Your task to perform on an android device: add a contact in the contacts app Image 0: 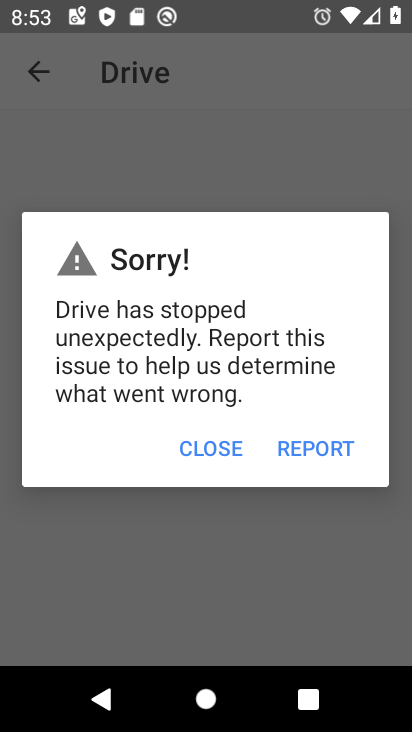
Step 0: press home button
Your task to perform on an android device: add a contact in the contacts app Image 1: 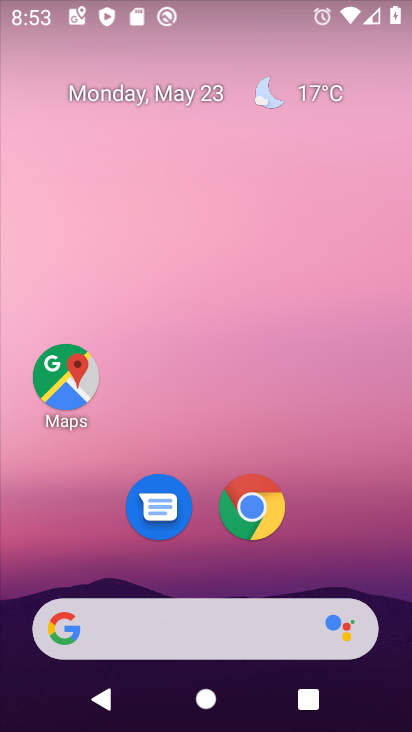
Step 1: drag from (353, 584) to (365, 6)
Your task to perform on an android device: add a contact in the contacts app Image 2: 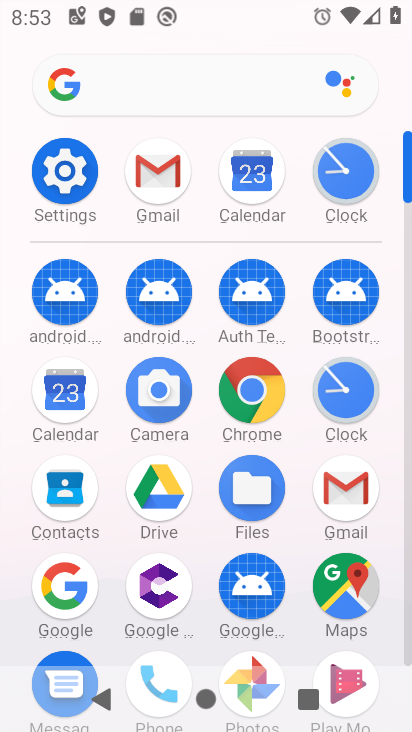
Step 2: click (52, 491)
Your task to perform on an android device: add a contact in the contacts app Image 3: 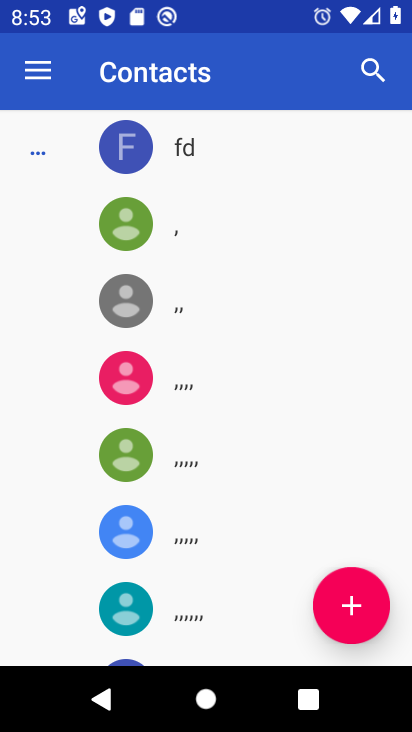
Step 3: click (343, 607)
Your task to perform on an android device: add a contact in the contacts app Image 4: 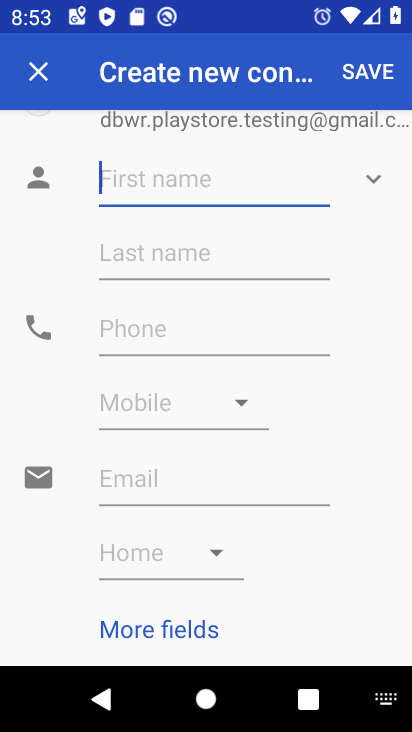
Step 4: type "kk"
Your task to perform on an android device: add a contact in the contacts app Image 5: 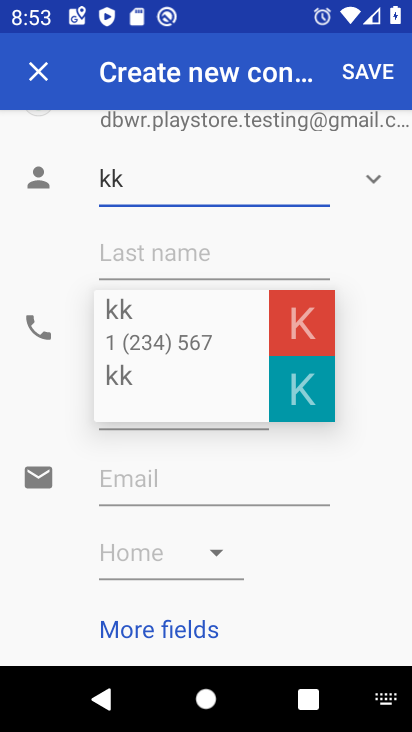
Step 5: click (366, 330)
Your task to perform on an android device: add a contact in the contacts app Image 6: 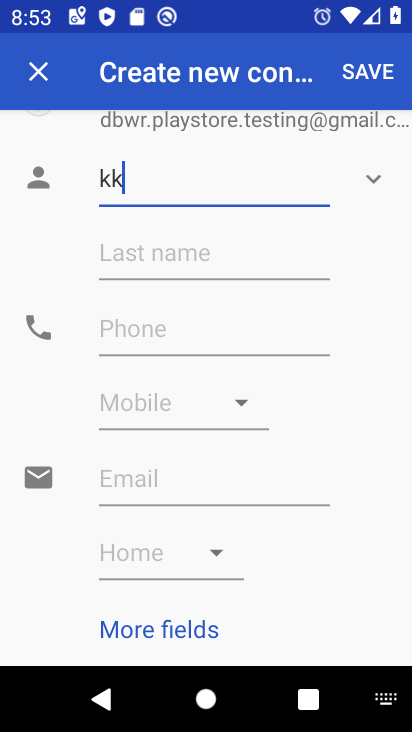
Step 6: click (194, 339)
Your task to perform on an android device: add a contact in the contacts app Image 7: 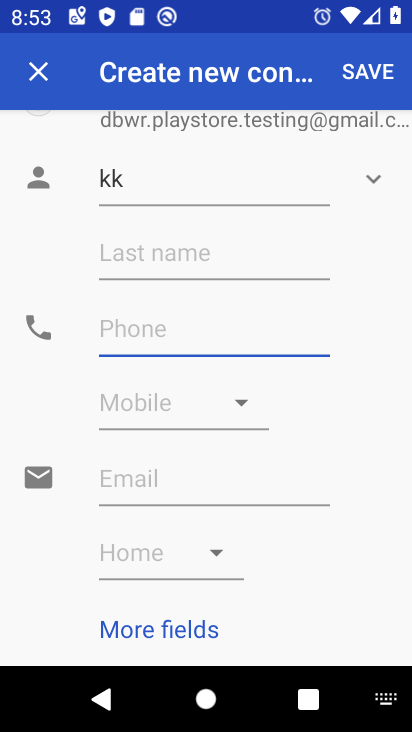
Step 7: type "9887655544"
Your task to perform on an android device: add a contact in the contacts app Image 8: 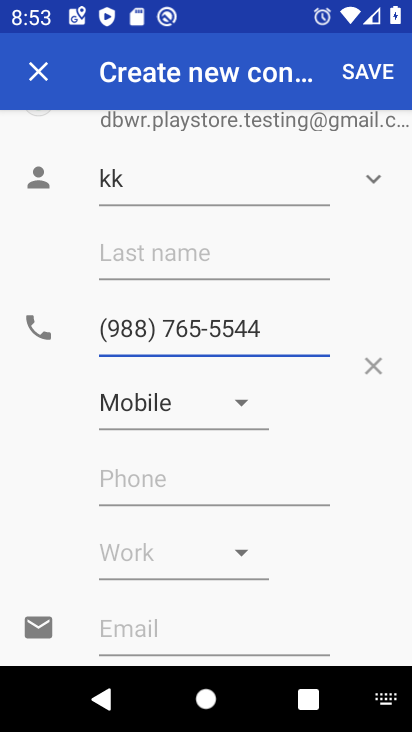
Step 8: click (344, 75)
Your task to perform on an android device: add a contact in the contacts app Image 9: 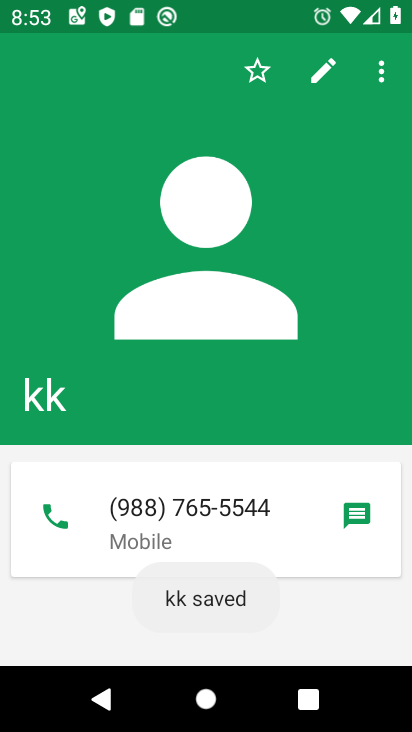
Step 9: task complete